Your task to perform on an android device: open app "Truecaller" Image 0: 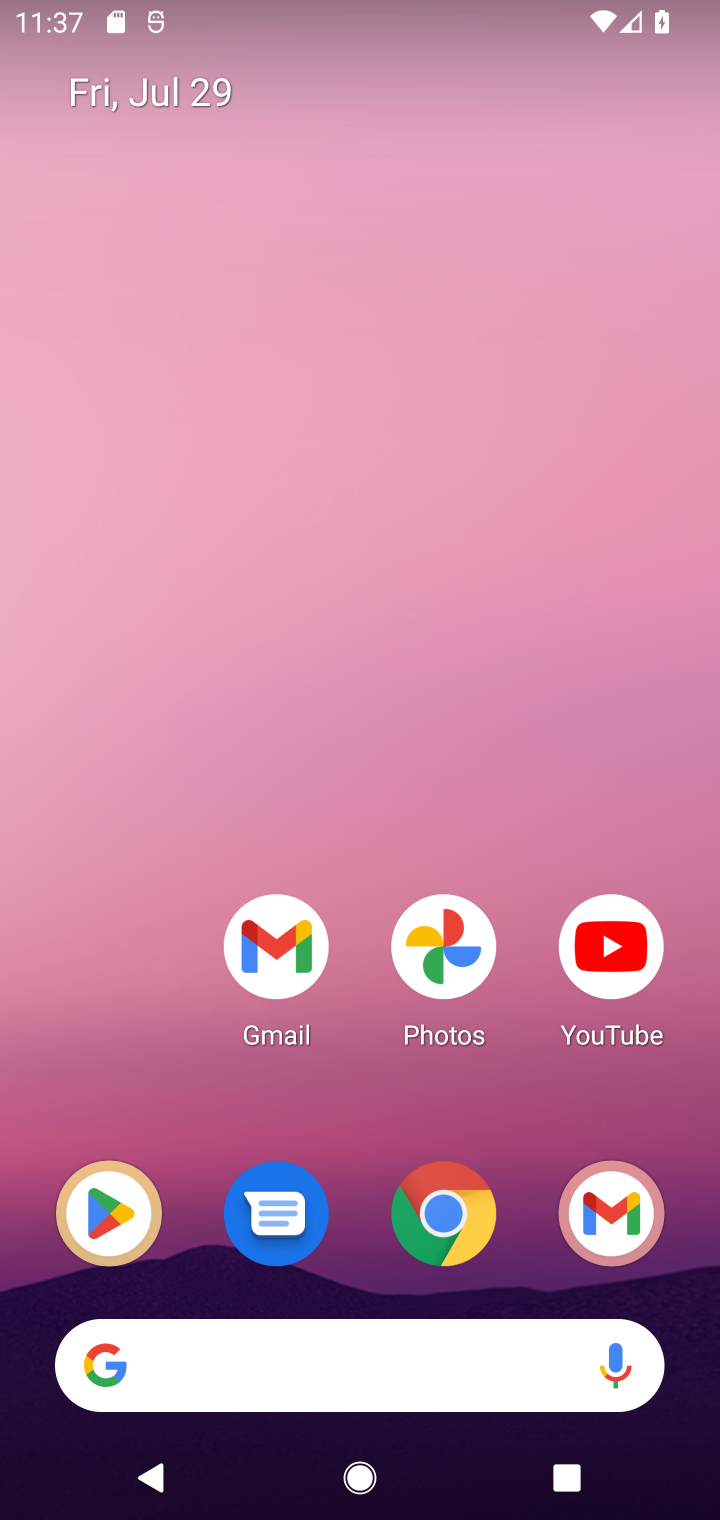
Step 0: drag from (412, 1335) to (360, 431)
Your task to perform on an android device: open app "Truecaller" Image 1: 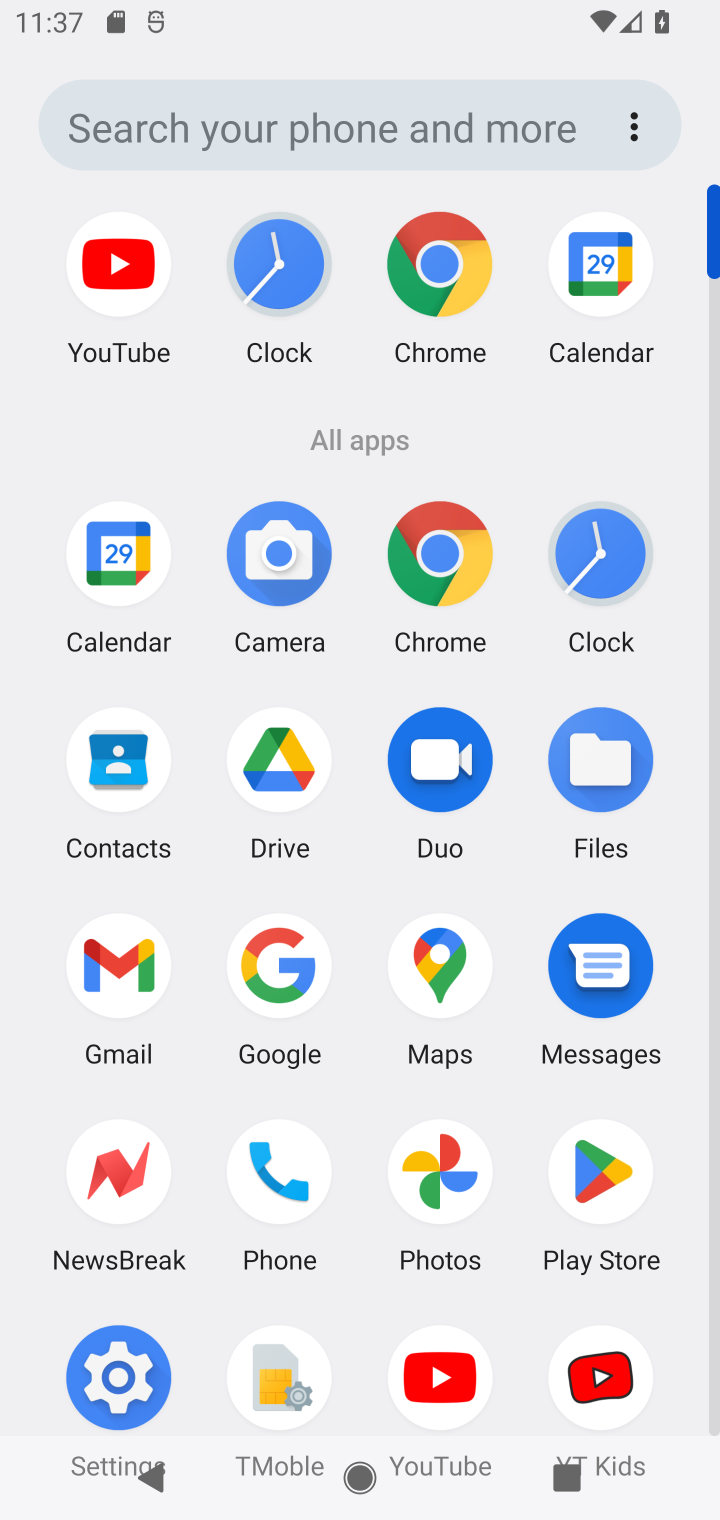
Step 1: drag from (543, 1316) to (503, 512)
Your task to perform on an android device: open app "Truecaller" Image 2: 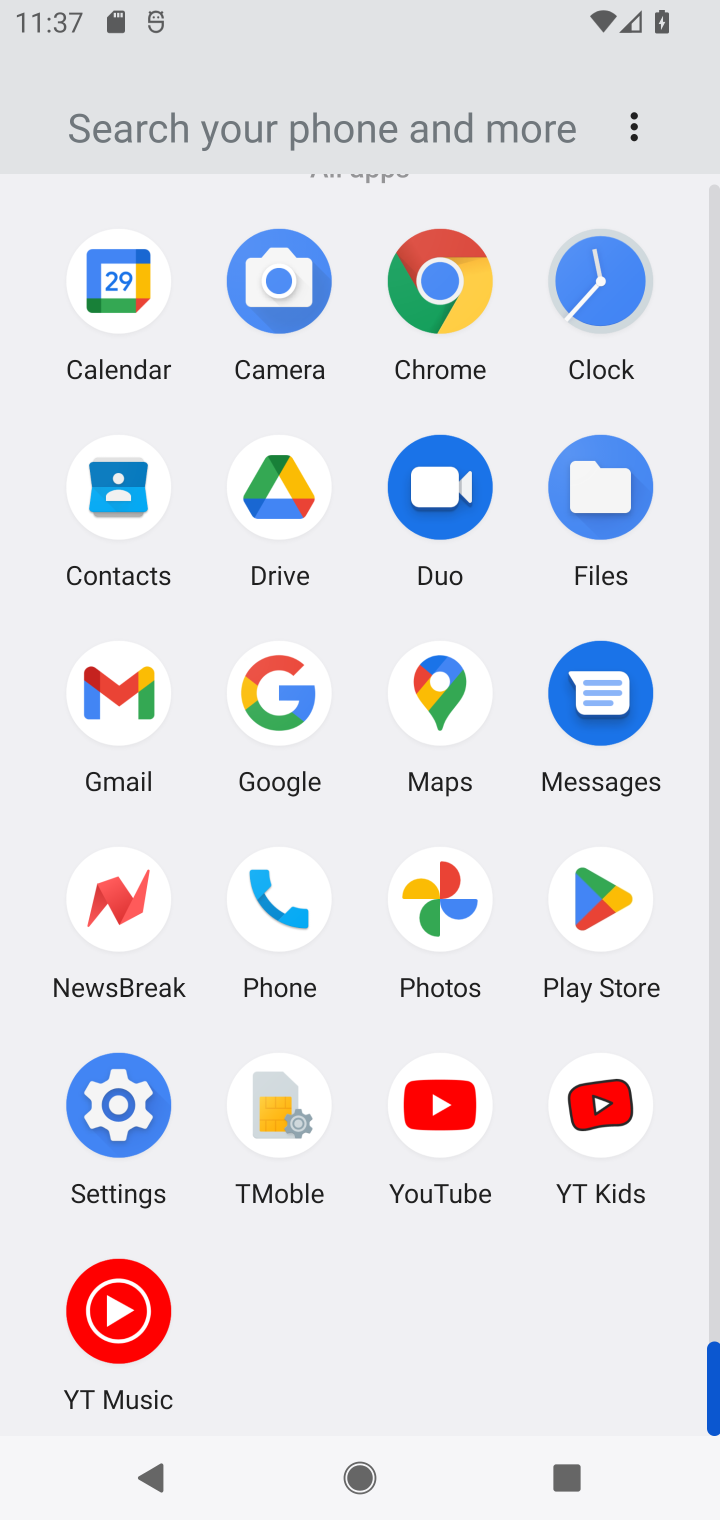
Step 2: click (593, 915)
Your task to perform on an android device: open app "Truecaller" Image 3: 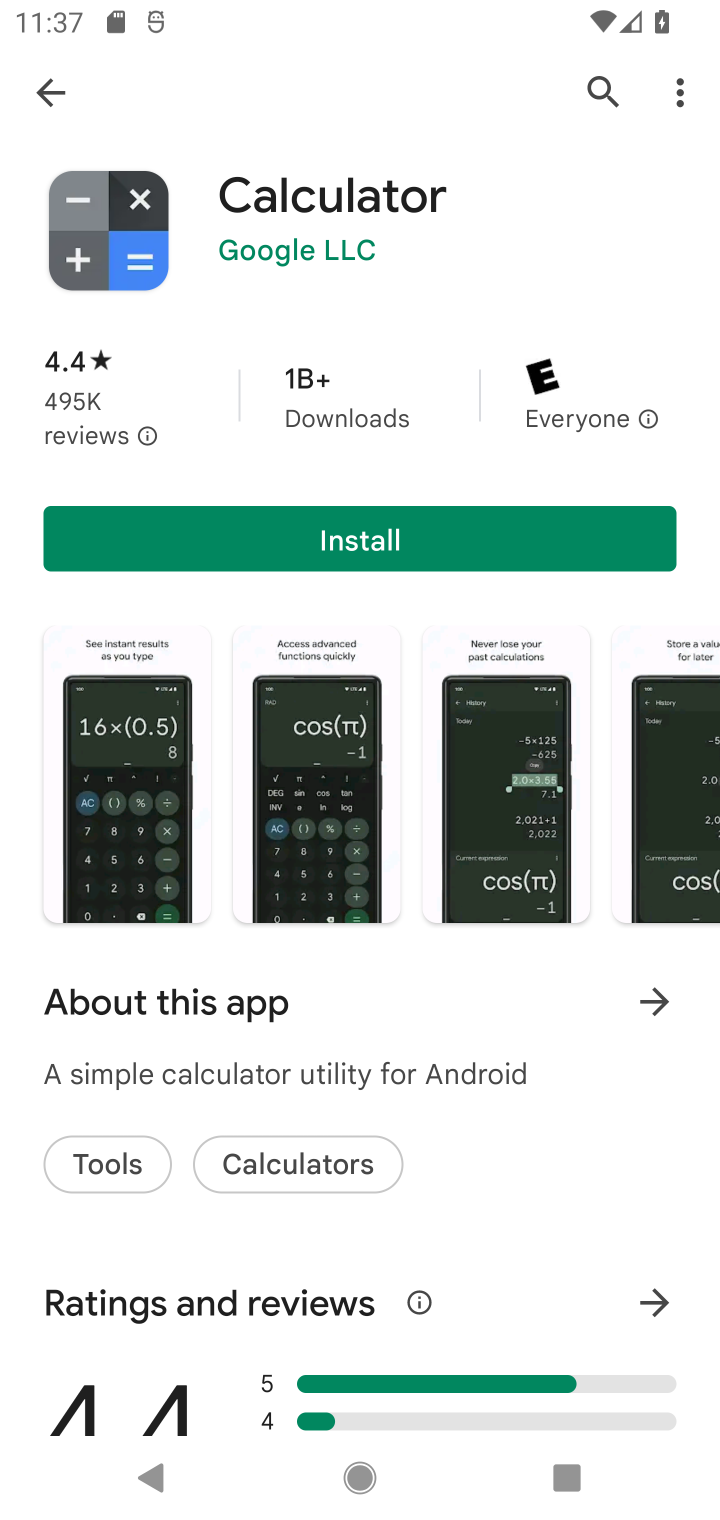
Step 3: click (601, 84)
Your task to perform on an android device: open app "Truecaller" Image 4: 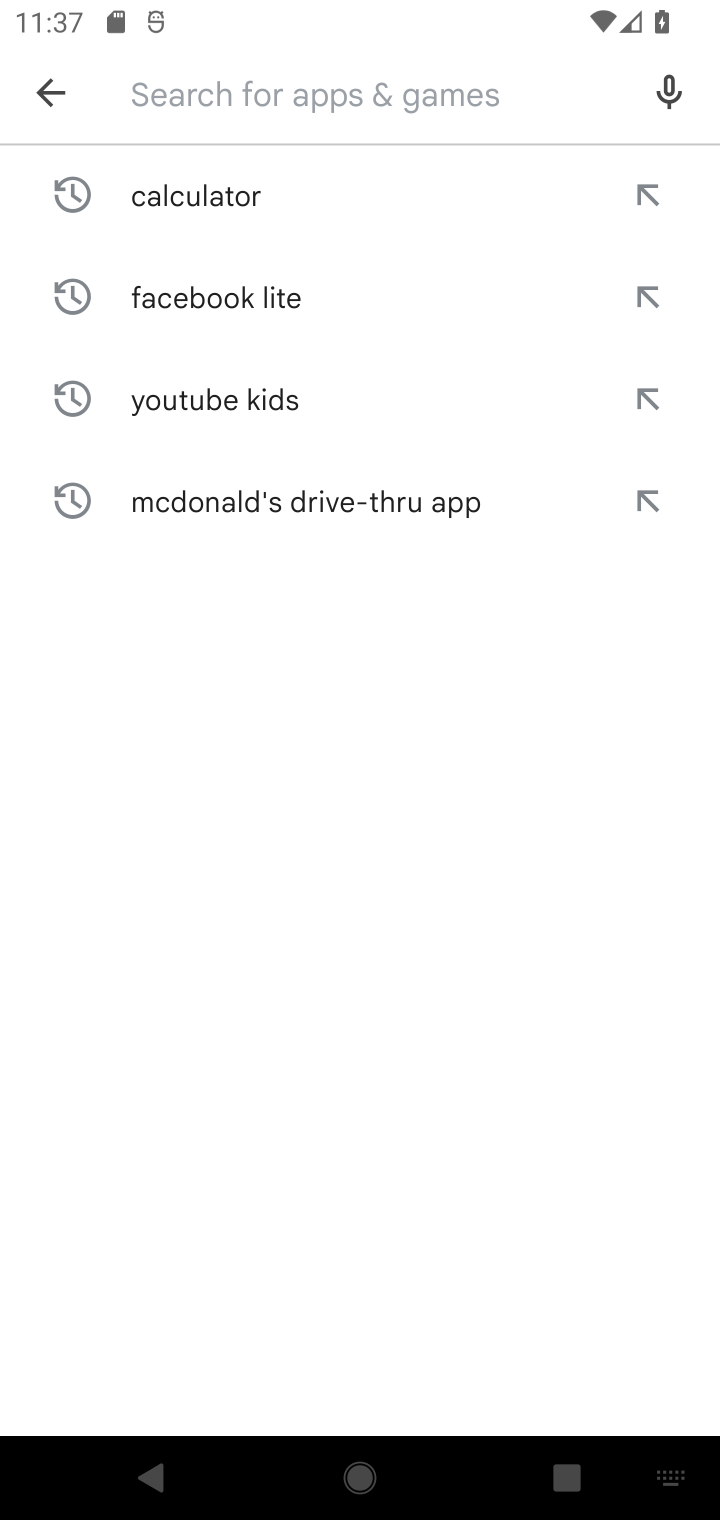
Step 4: type "Truecaller"
Your task to perform on an android device: open app "Truecaller" Image 5: 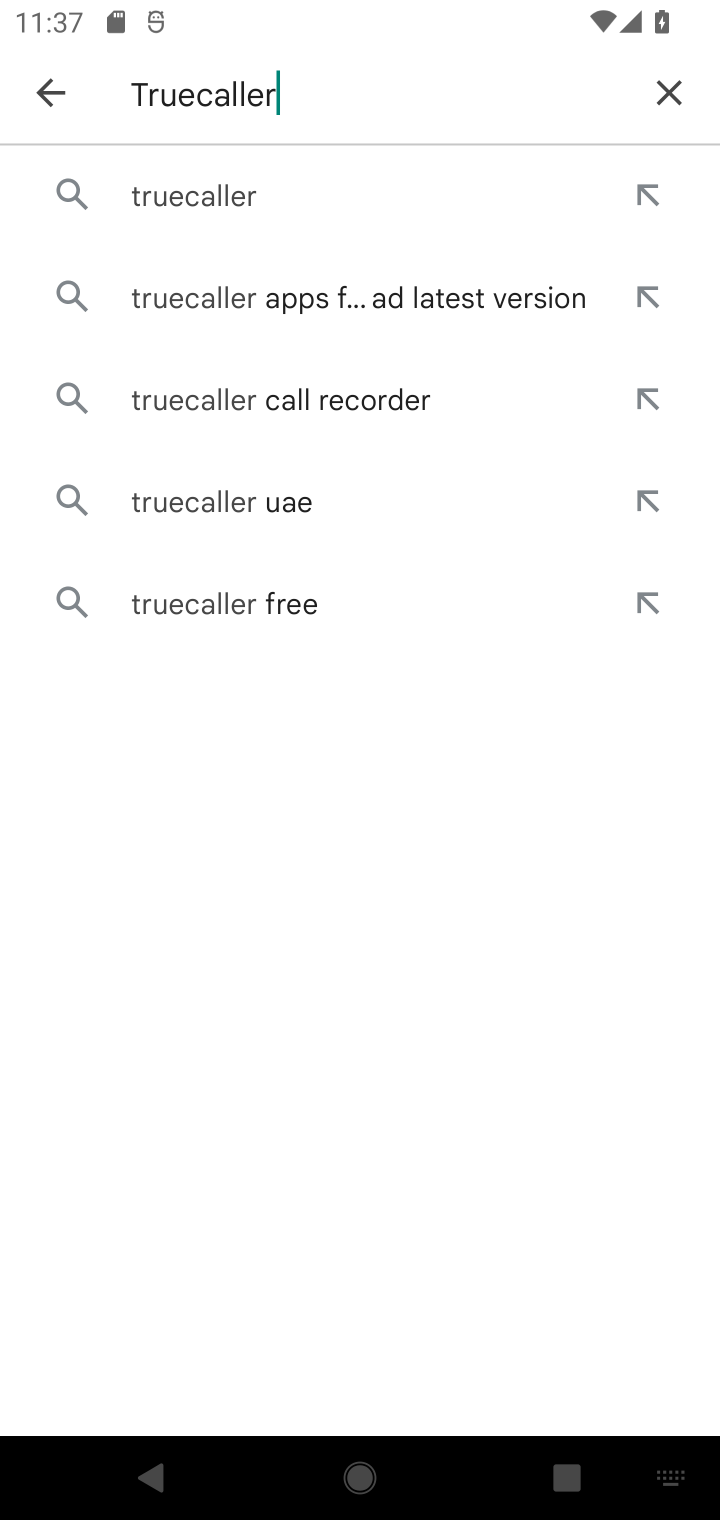
Step 5: click (186, 191)
Your task to perform on an android device: open app "Truecaller" Image 6: 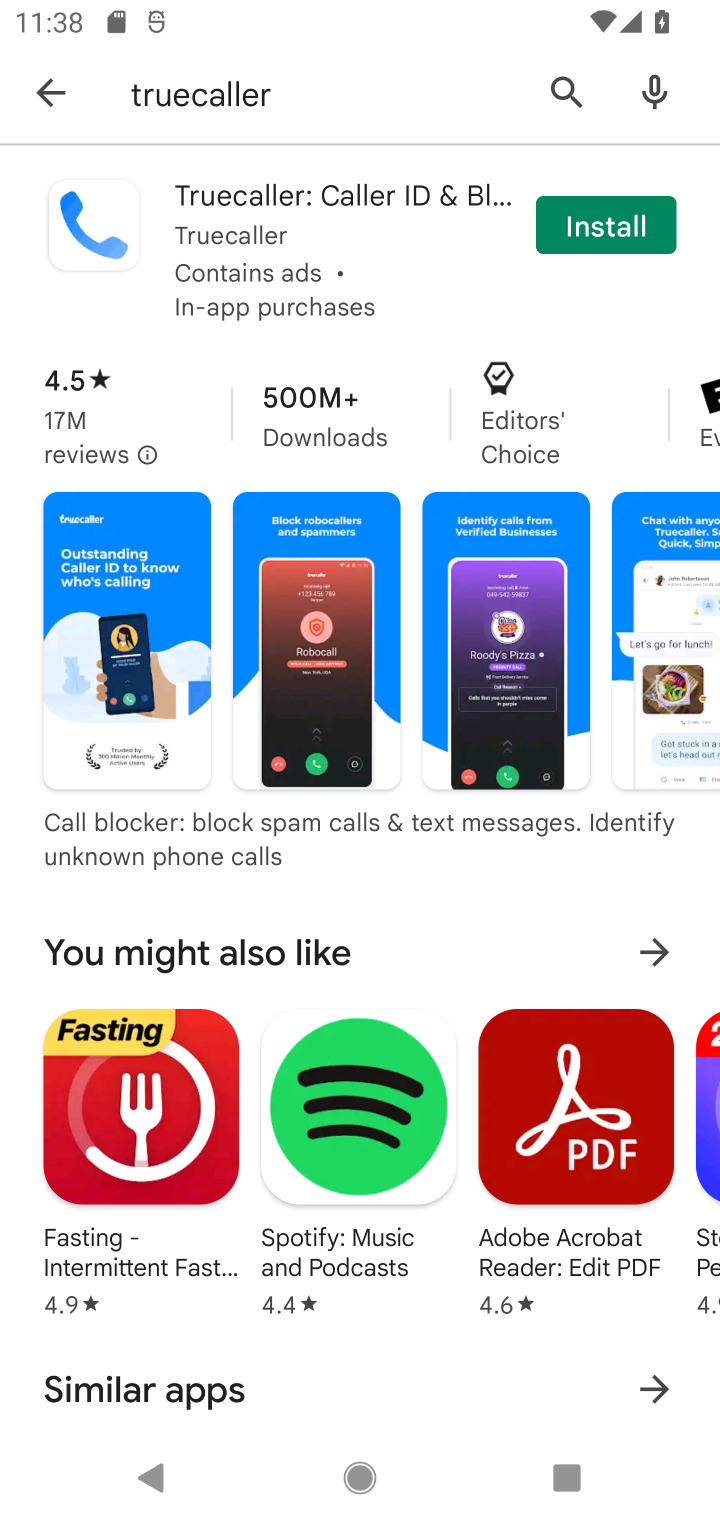
Step 6: task complete